Your task to perform on an android device: Go to location settings Image 0: 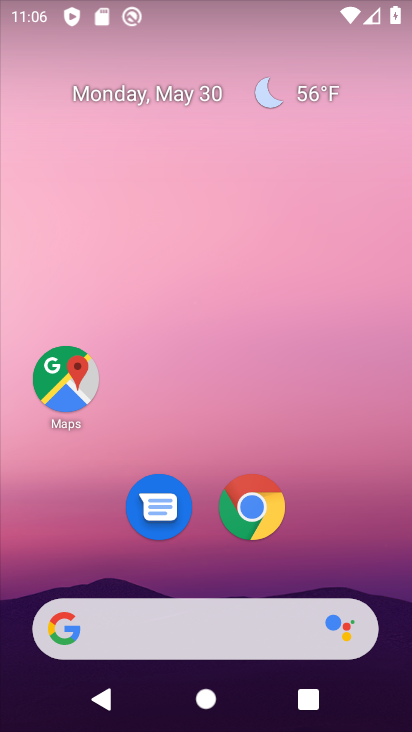
Step 0: drag from (177, 679) to (304, 0)
Your task to perform on an android device: Go to location settings Image 1: 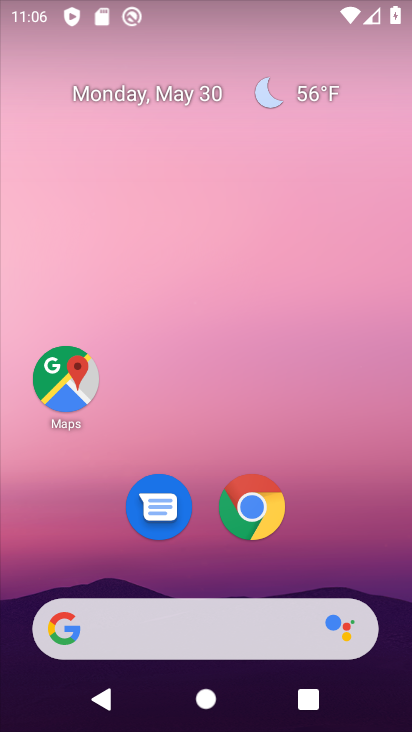
Step 1: drag from (163, 730) to (172, 62)
Your task to perform on an android device: Go to location settings Image 2: 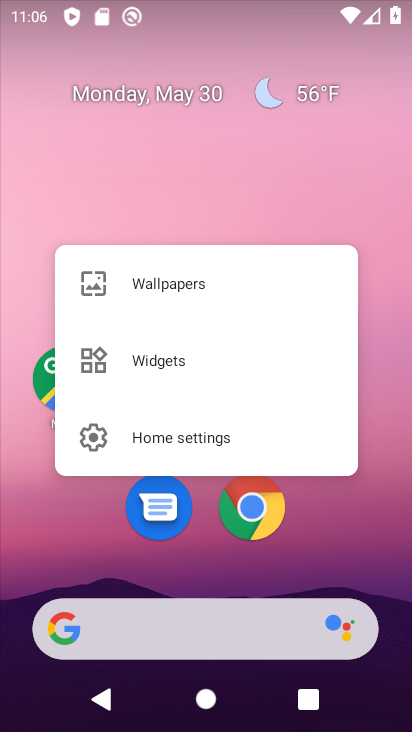
Step 2: press home button
Your task to perform on an android device: Go to location settings Image 3: 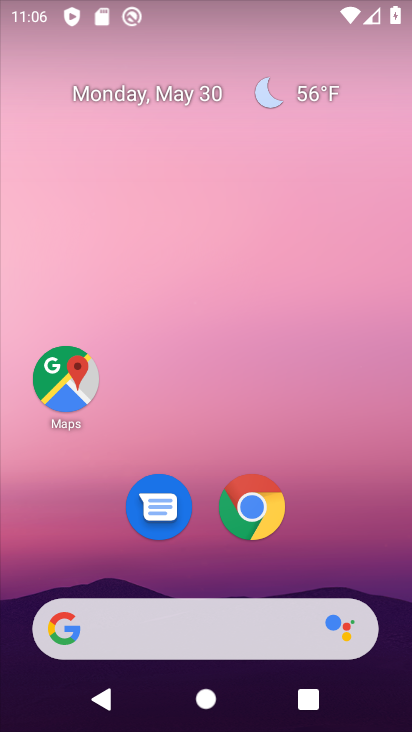
Step 3: drag from (138, 726) to (228, 1)
Your task to perform on an android device: Go to location settings Image 4: 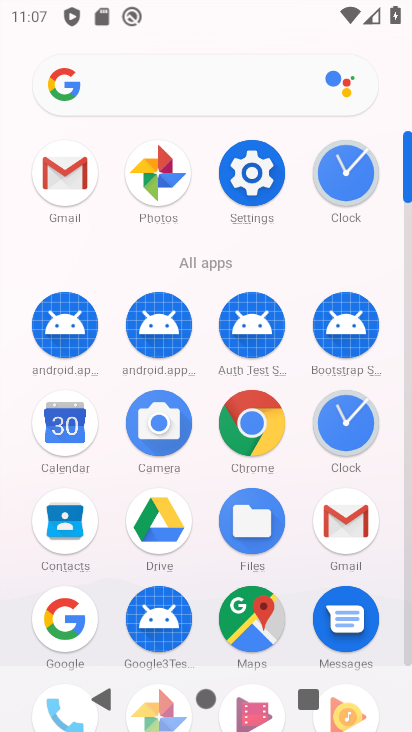
Step 4: click (264, 183)
Your task to perform on an android device: Go to location settings Image 5: 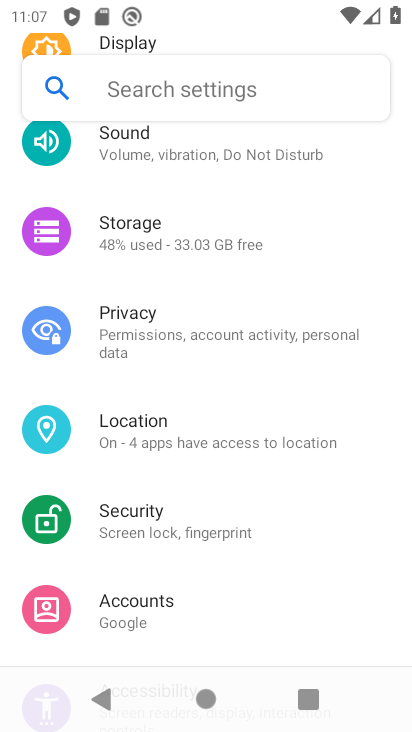
Step 5: drag from (287, 217) to (295, 625)
Your task to perform on an android device: Go to location settings Image 6: 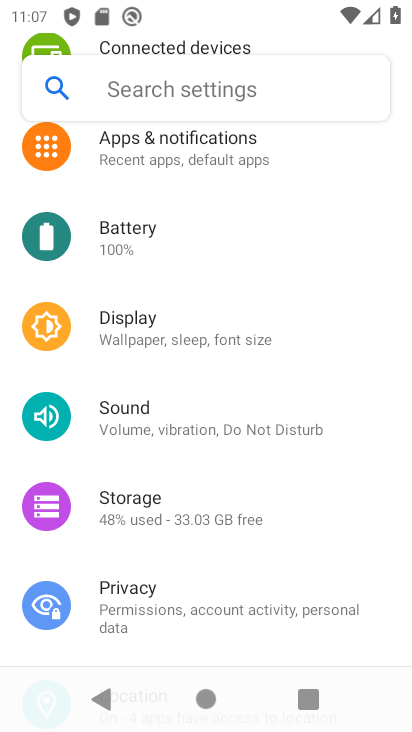
Step 6: drag from (195, 574) to (179, 158)
Your task to perform on an android device: Go to location settings Image 7: 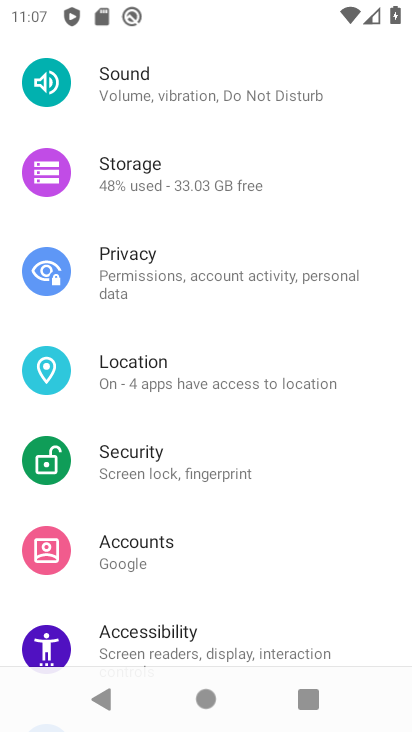
Step 7: click (181, 374)
Your task to perform on an android device: Go to location settings Image 8: 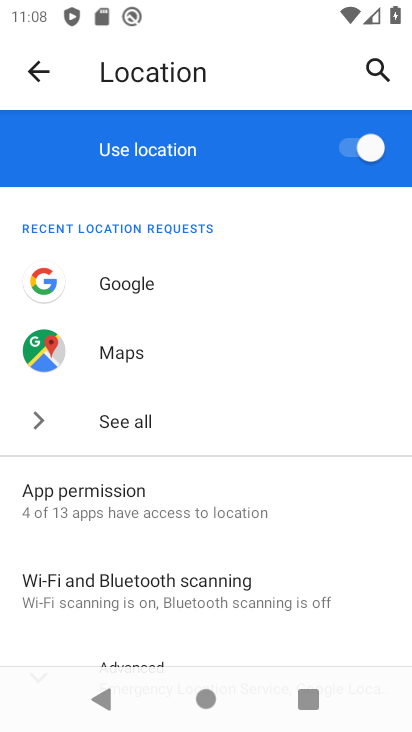
Step 8: task complete